Your task to perform on an android device: toggle data saver in the chrome app Image 0: 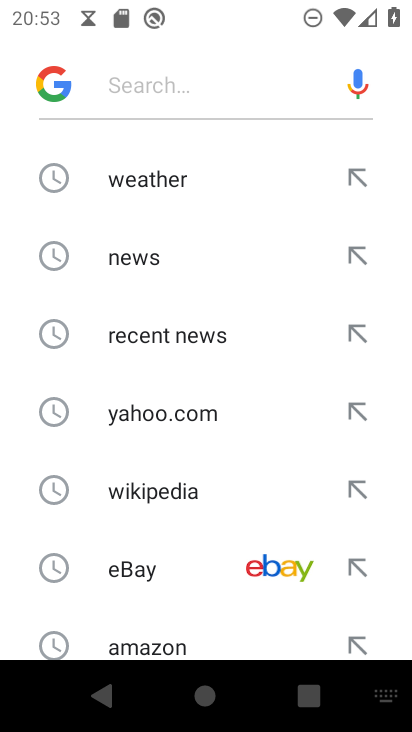
Step 0: press home button
Your task to perform on an android device: toggle data saver in the chrome app Image 1: 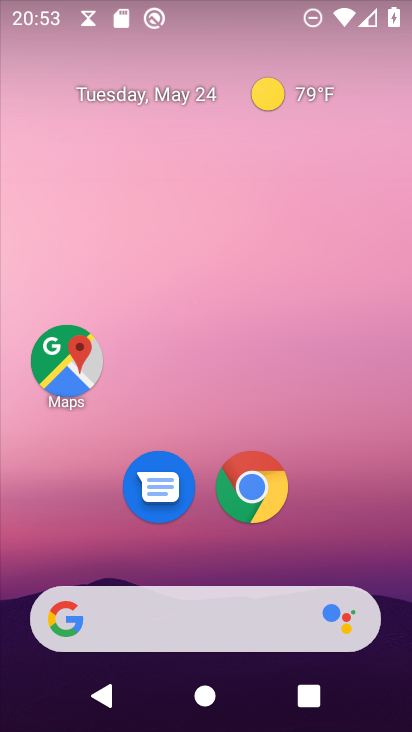
Step 1: click (248, 473)
Your task to perform on an android device: toggle data saver in the chrome app Image 2: 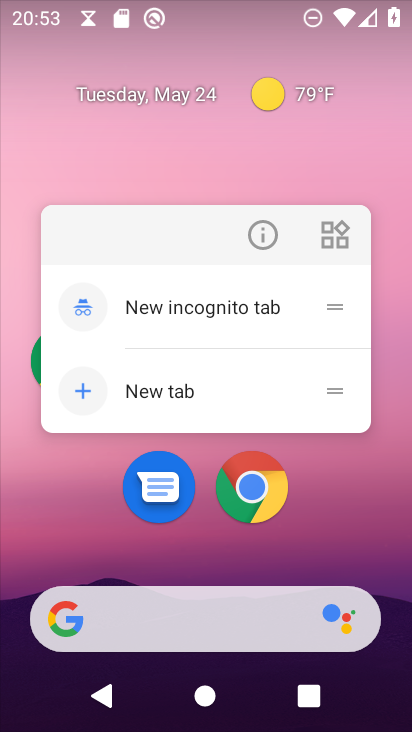
Step 2: click (255, 481)
Your task to perform on an android device: toggle data saver in the chrome app Image 3: 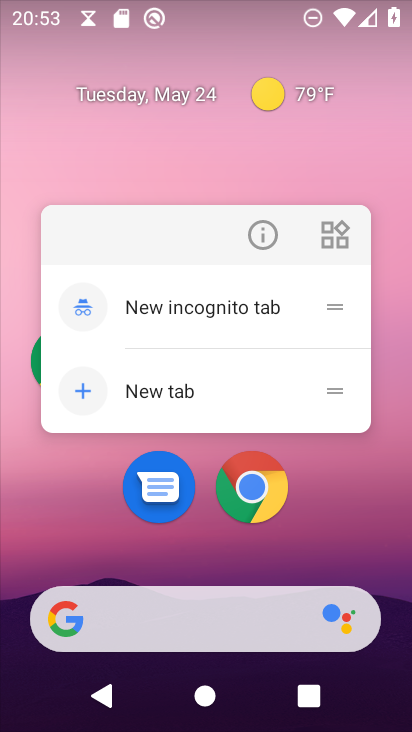
Step 3: click (251, 472)
Your task to perform on an android device: toggle data saver in the chrome app Image 4: 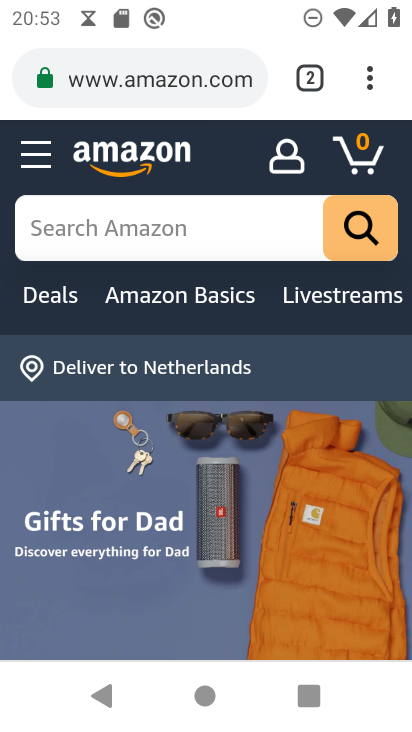
Step 4: click (322, 77)
Your task to perform on an android device: toggle data saver in the chrome app Image 5: 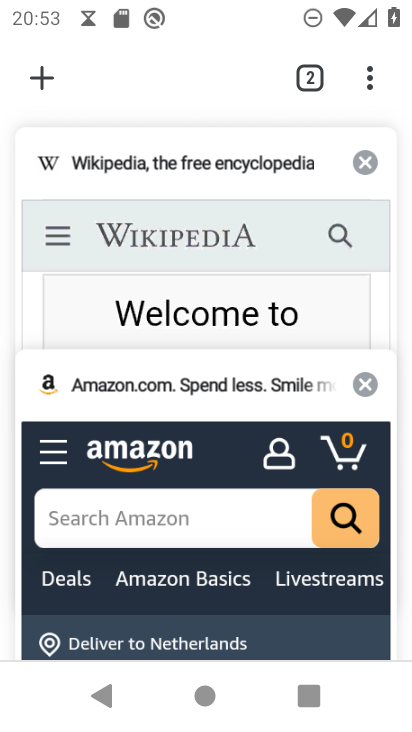
Step 5: click (369, 374)
Your task to perform on an android device: toggle data saver in the chrome app Image 6: 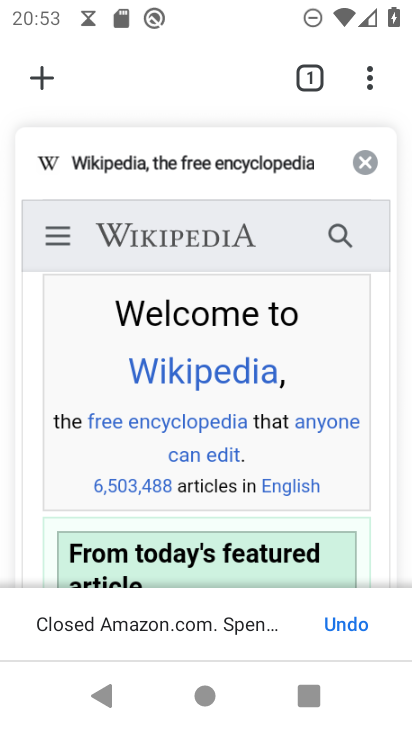
Step 6: click (366, 159)
Your task to perform on an android device: toggle data saver in the chrome app Image 7: 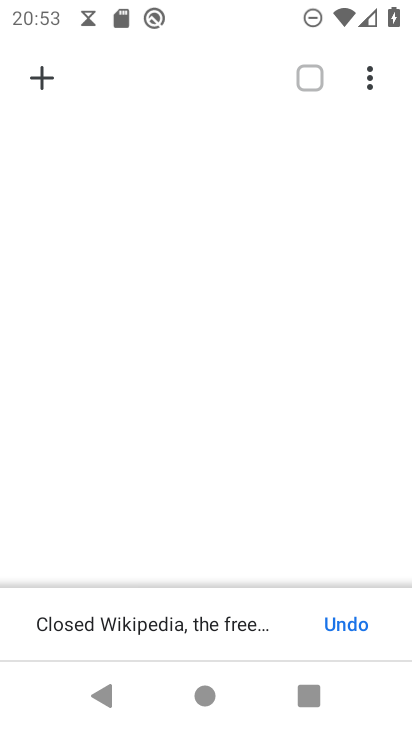
Step 7: click (46, 79)
Your task to perform on an android device: toggle data saver in the chrome app Image 8: 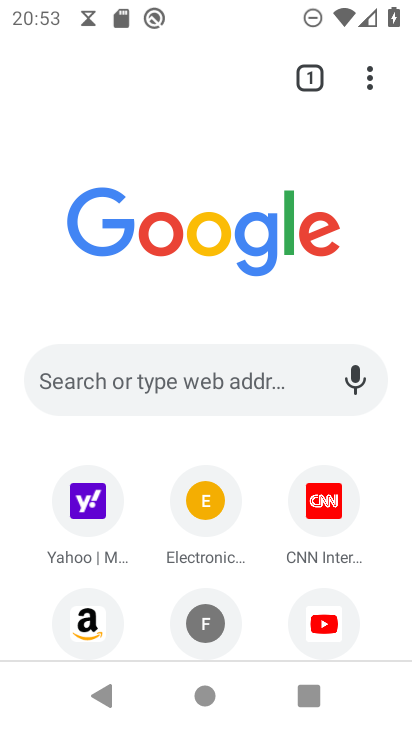
Step 8: click (366, 78)
Your task to perform on an android device: toggle data saver in the chrome app Image 9: 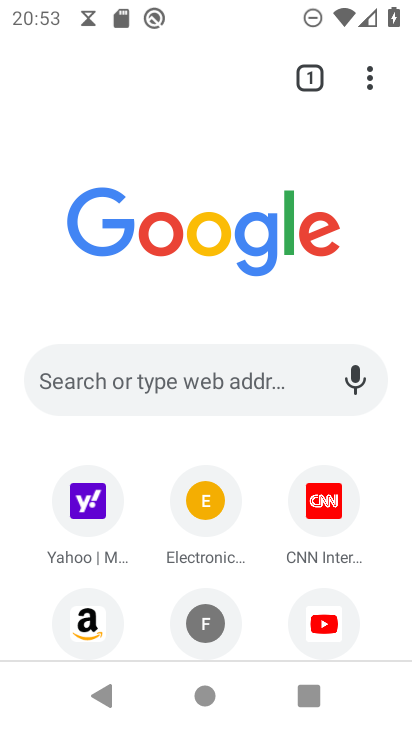
Step 9: click (369, 78)
Your task to perform on an android device: toggle data saver in the chrome app Image 10: 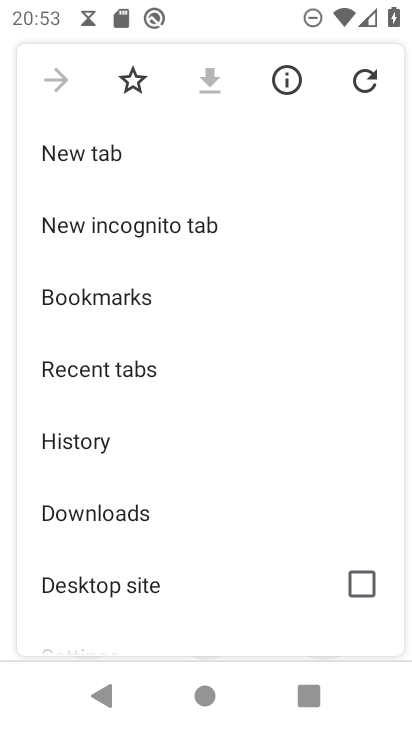
Step 10: drag from (103, 593) to (213, 61)
Your task to perform on an android device: toggle data saver in the chrome app Image 11: 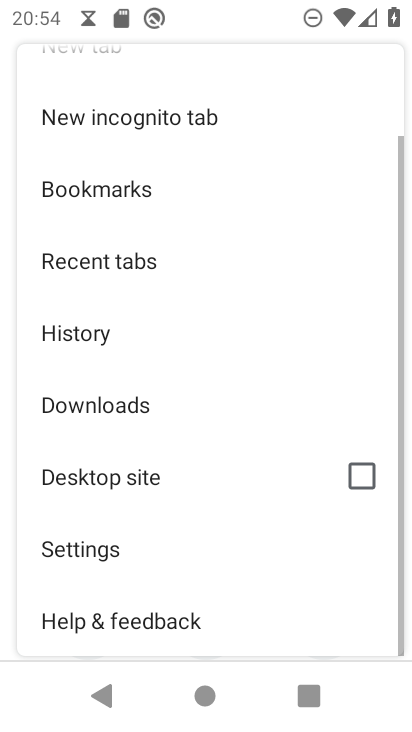
Step 11: click (59, 543)
Your task to perform on an android device: toggle data saver in the chrome app Image 12: 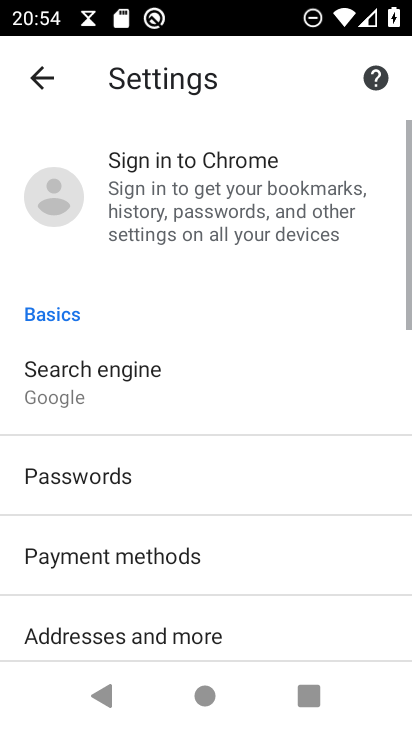
Step 12: drag from (108, 604) to (213, 85)
Your task to perform on an android device: toggle data saver in the chrome app Image 13: 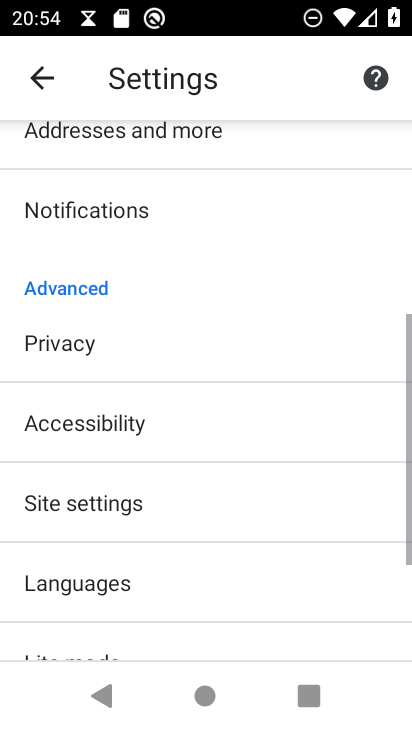
Step 13: drag from (19, 606) to (170, 140)
Your task to perform on an android device: toggle data saver in the chrome app Image 14: 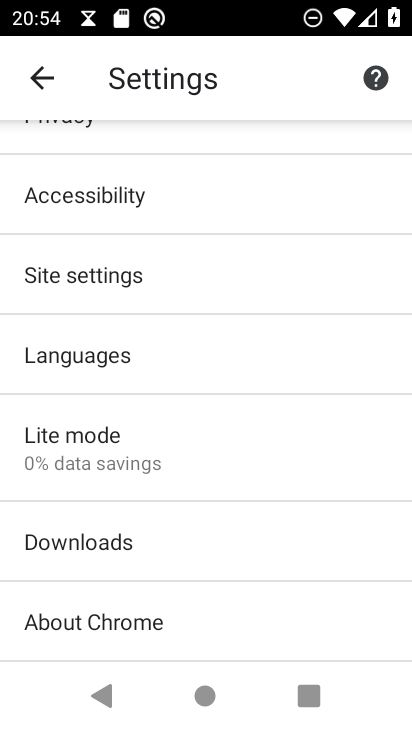
Step 14: drag from (89, 607) to (197, 117)
Your task to perform on an android device: toggle data saver in the chrome app Image 15: 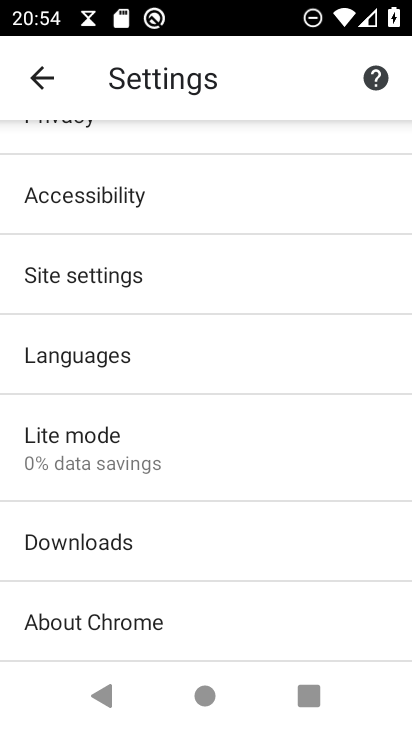
Step 15: click (76, 441)
Your task to perform on an android device: toggle data saver in the chrome app Image 16: 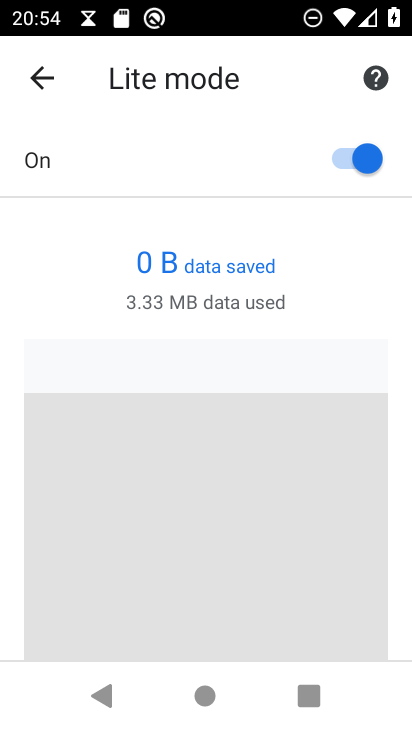
Step 16: click (370, 150)
Your task to perform on an android device: toggle data saver in the chrome app Image 17: 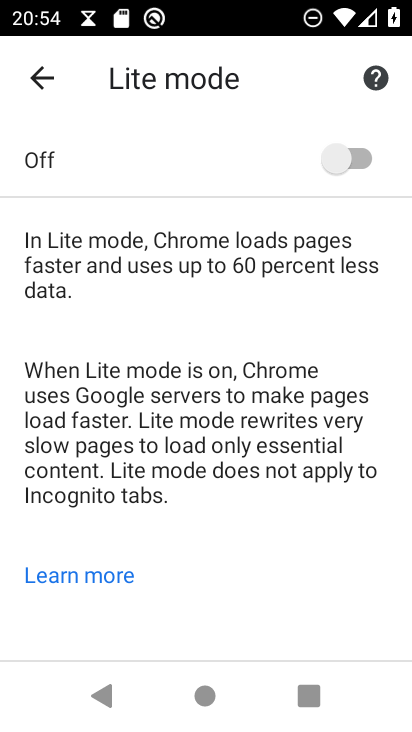
Step 17: task complete